Your task to perform on an android device: Open Google Chrome and click the shortcut for Amazon.com Image 0: 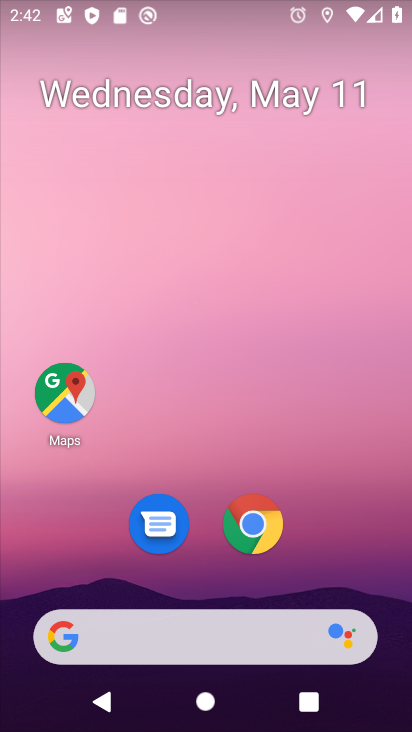
Step 0: click (256, 529)
Your task to perform on an android device: Open Google Chrome and click the shortcut for Amazon.com Image 1: 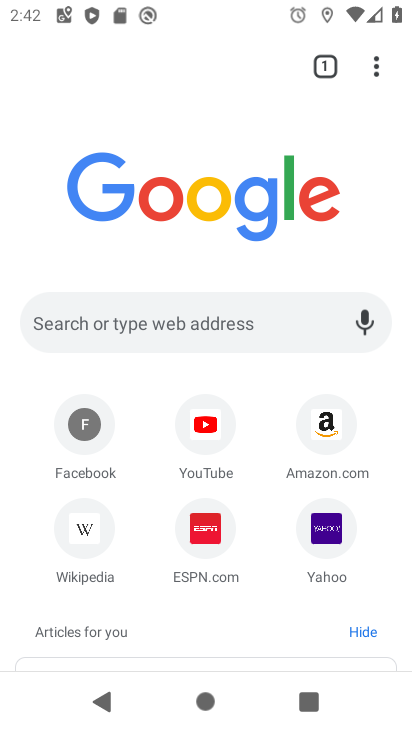
Step 1: click (326, 418)
Your task to perform on an android device: Open Google Chrome and click the shortcut for Amazon.com Image 2: 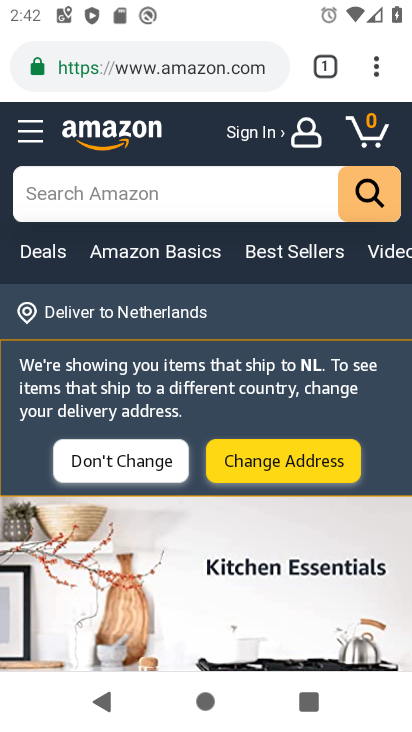
Step 2: task complete